Your task to perform on an android device: install app "Pinterest" Image 0: 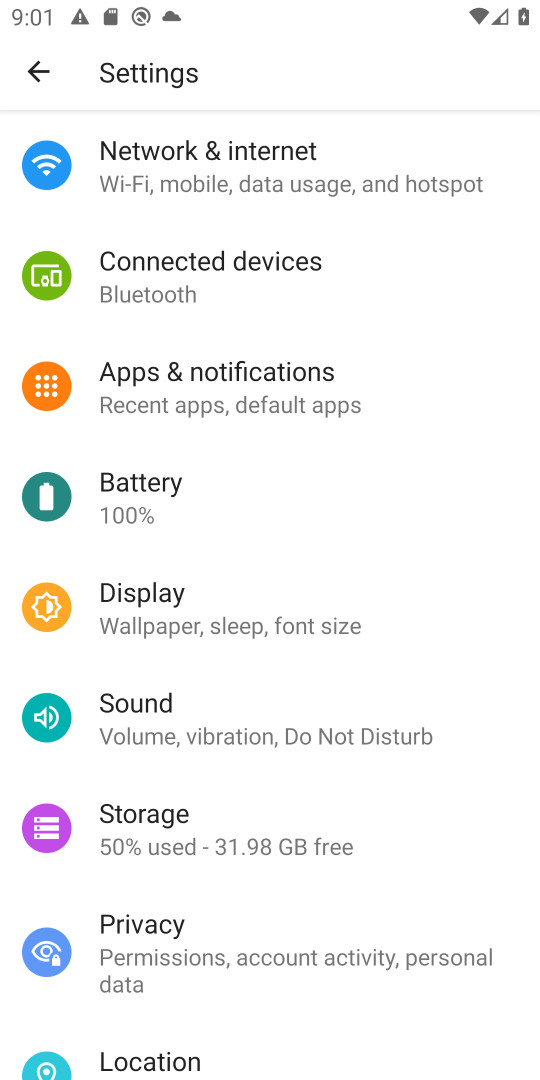
Step 0: press home button
Your task to perform on an android device: install app "Pinterest" Image 1: 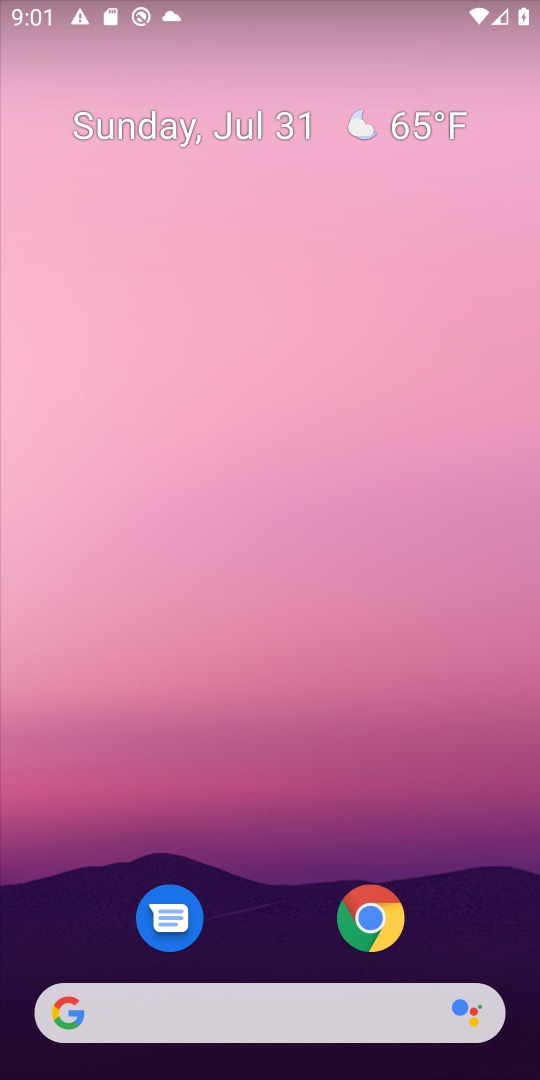
Step 1: drag from (242, 1028) to (232, 5)
Your task to perform on an android device: install app "Pinterest" Image 2: 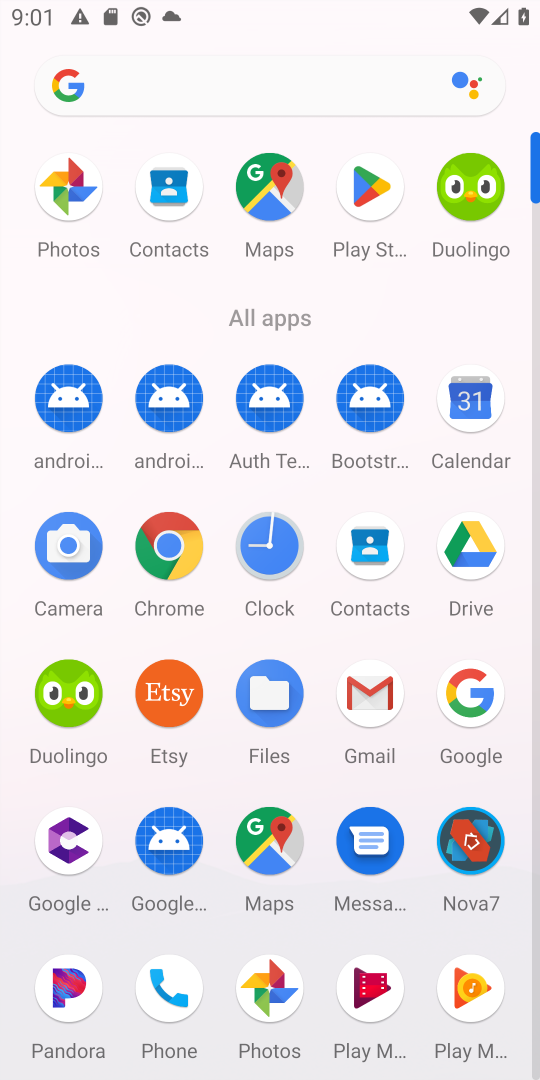
Step 2: click (364, 189)
Your task to perform on an android device: install app "Pinterest" Image 3: 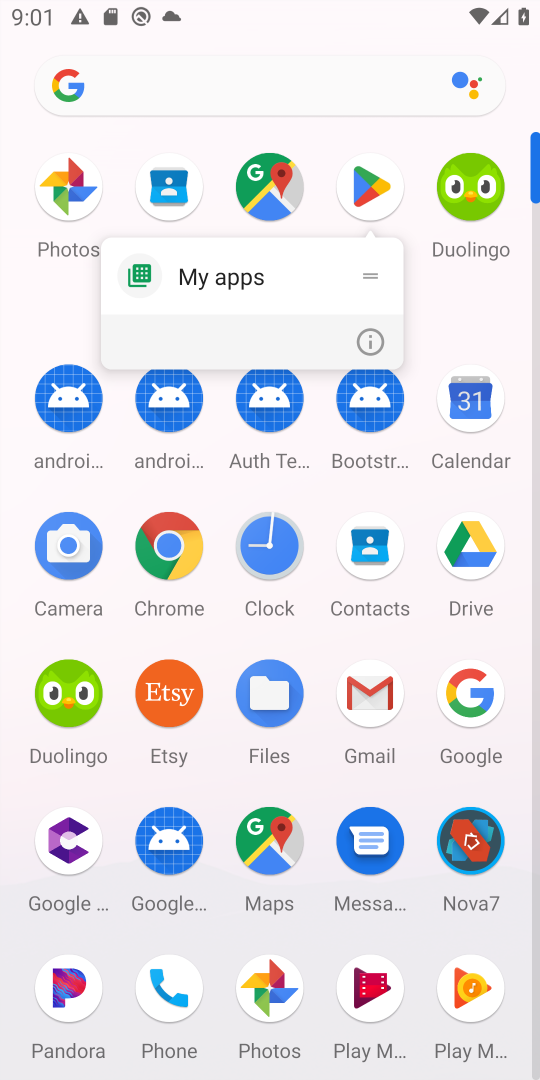
Step 3: click (364, 189)
Your task to perform on an android device: install app "Pinterest" Image 4: 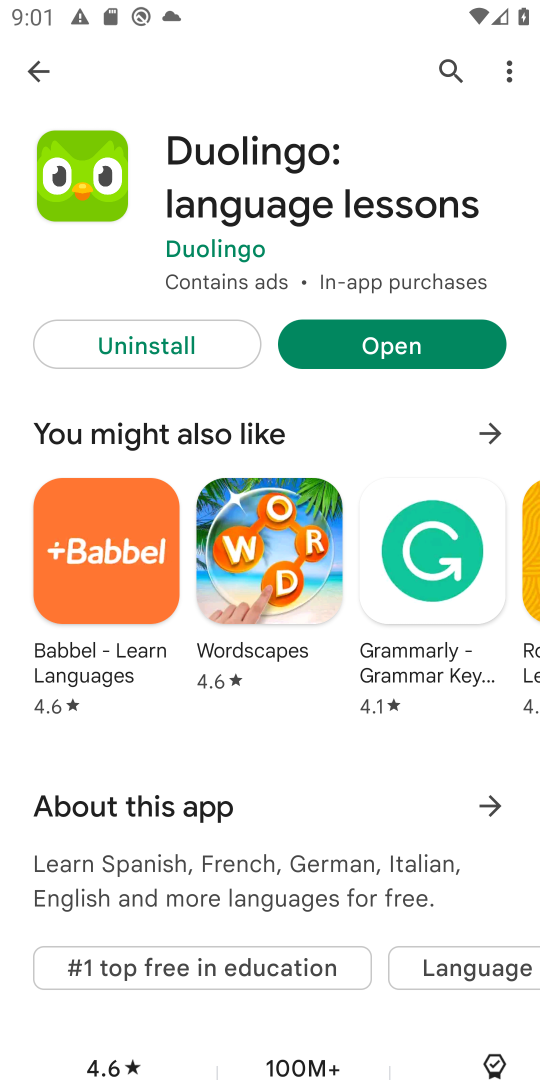
Step 4: click (453, 71)
Your task to perform on an android device: install app "Pinterest" Image 5: 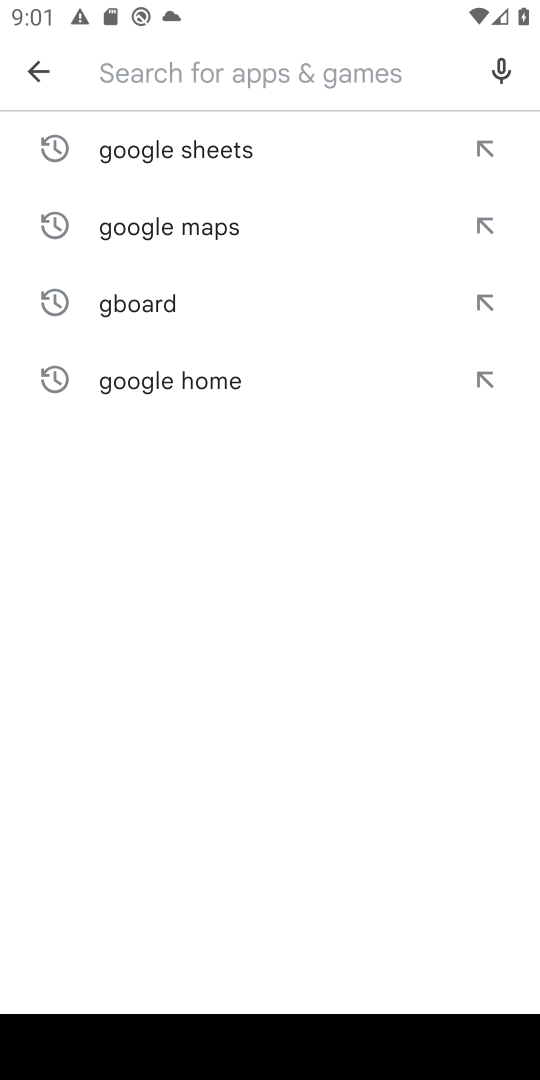
Step 5: type "Pinterest"
Your task to perform on an android device: install app "Pinterest" Image 6: 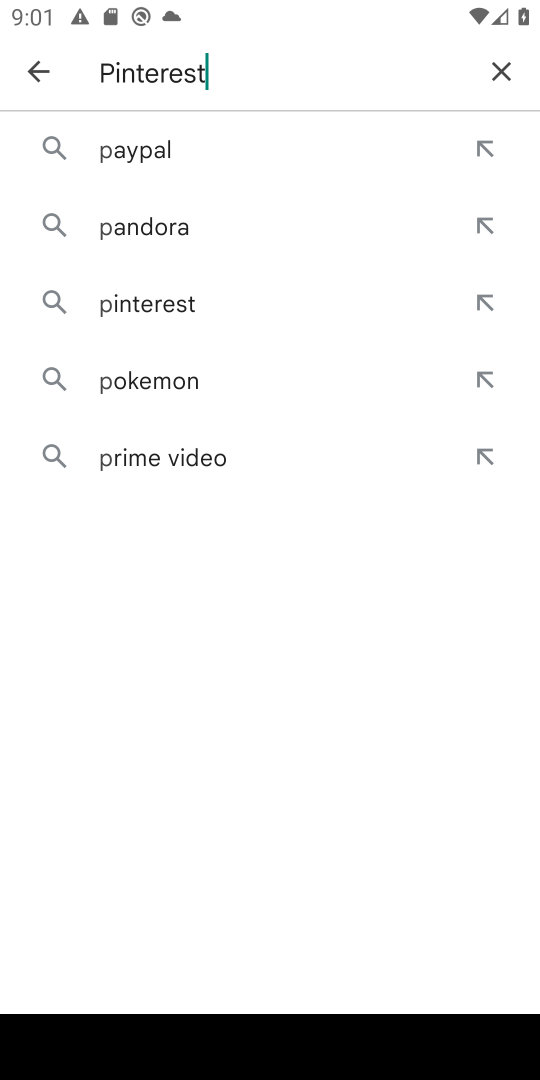
Step 6: type ""
Your task to perform on an android device: install app "Pinterest" Image 7: 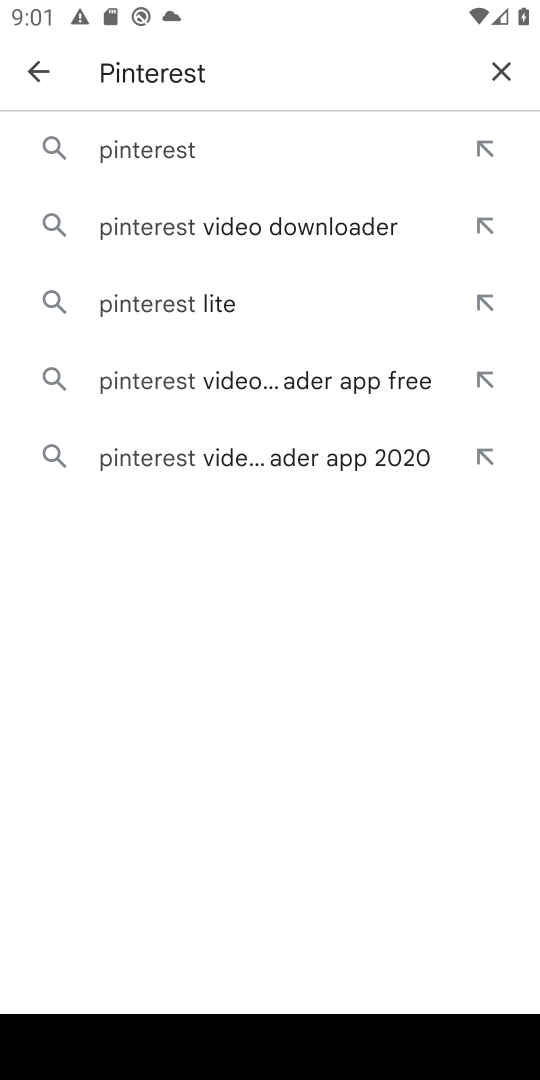
Step 7: click (264, 153)
Your task to perform on an android device: install app "Pinterest" Image 8: 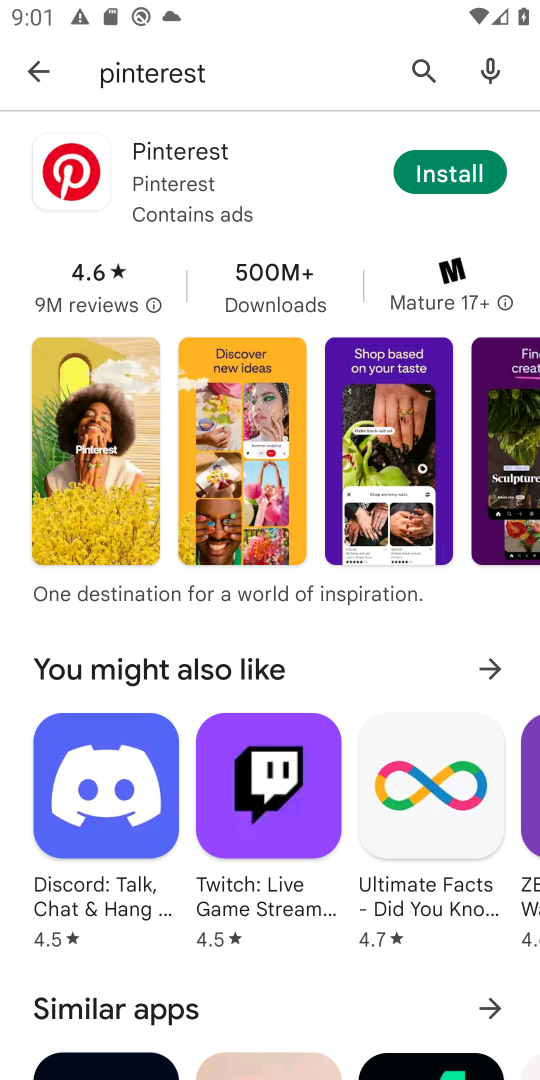
Step 8: click (429, 183)
Your task to perform on an android device: install app "Pinterest" Image 9: 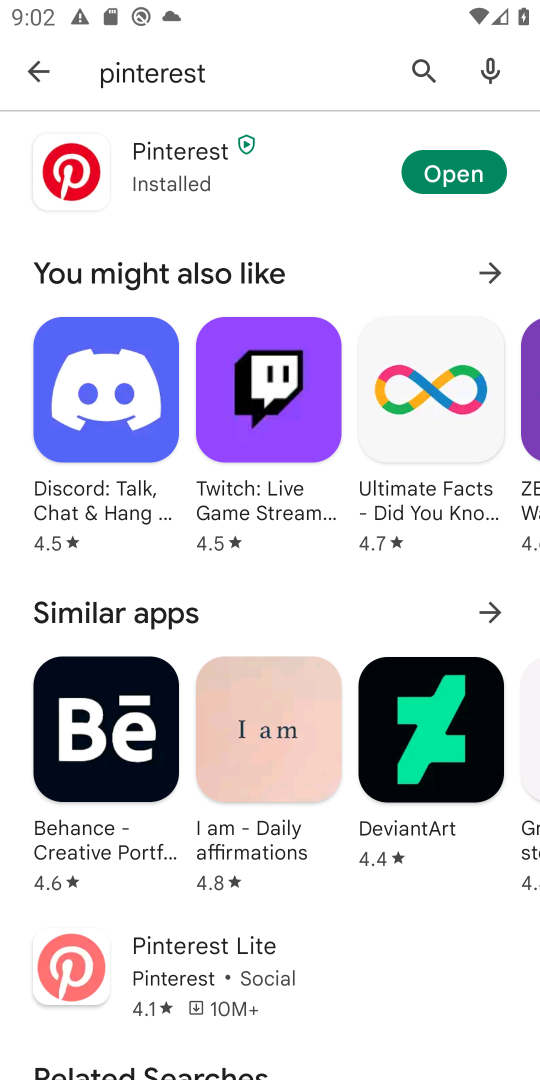
Step 9: task complete